Your task to perform on an android device: What is the news today? Image 0: 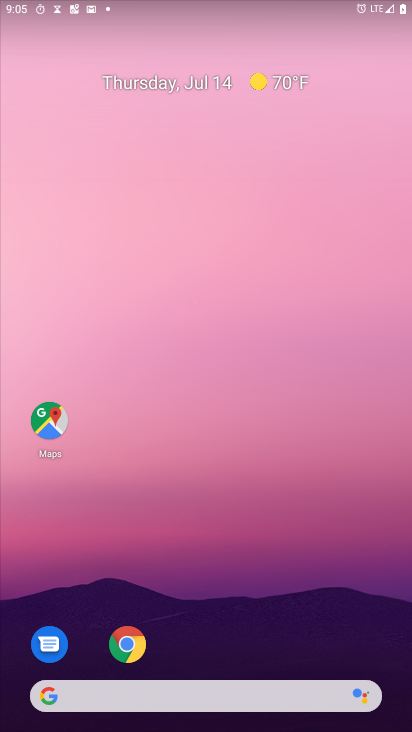
Step 0: click (178, 696)
Your task to perform on an android device: What is the news today? Image 1: 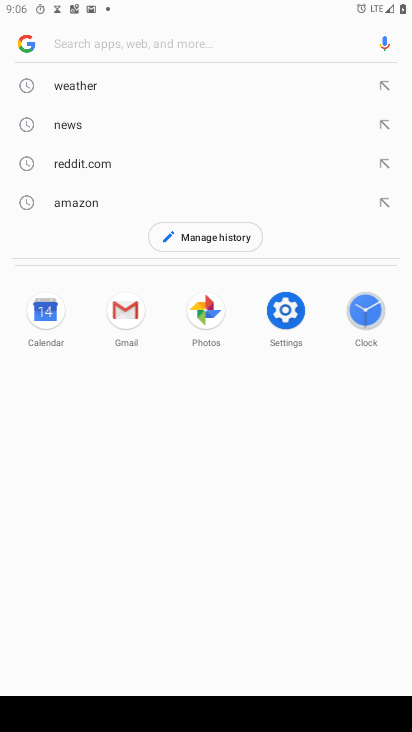
Step 1: click (72, 123)
Your task to perform on an android device: What is the news today? Image 2: 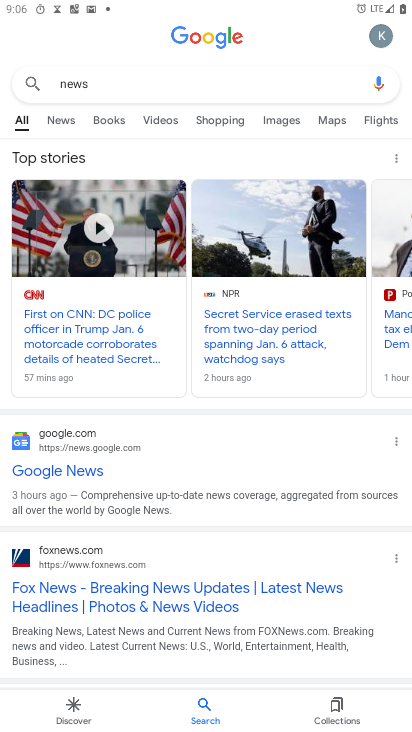
Step 2: click (62, 126)
Your task to perform on an android device: What is the news today? Image 3: 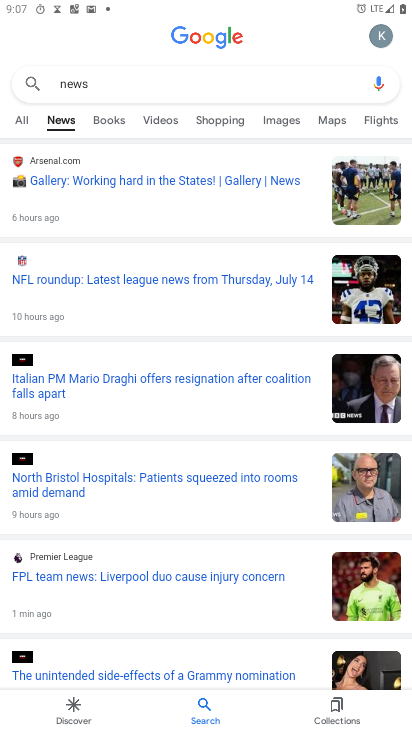
Step 3: task complete